Your task to perform on an android device: What's the weather going to be tomorrow? Image 0: 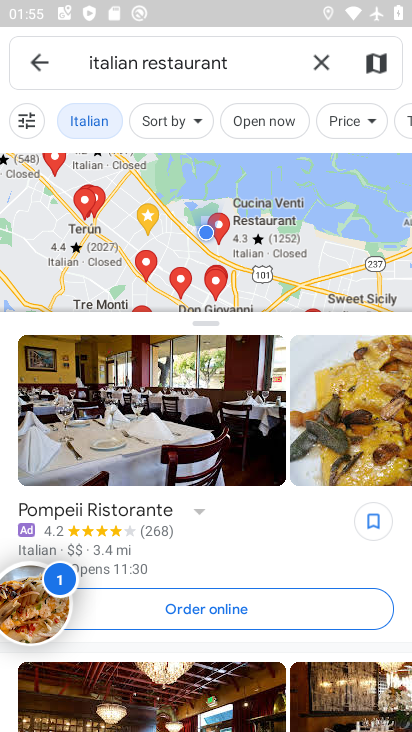
Step 0: press home button
Your task to perform on an android device: What's the weather going to be tomorrow? Image 1: 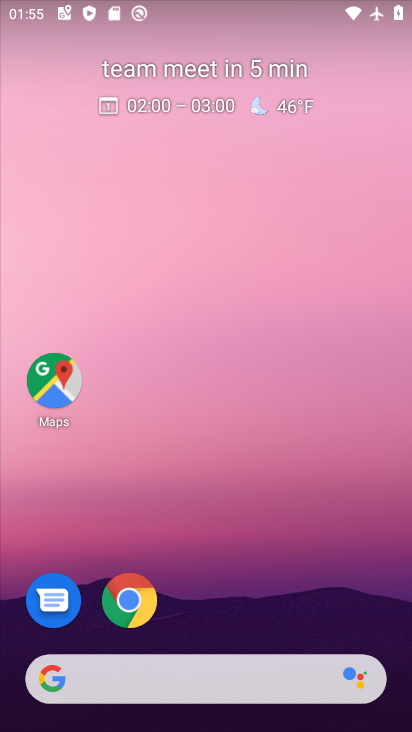
Step 1: drag from (218, 635) to (165, 71)
Your task to perform on an android device: What's the weather going to be tomorrow? Image 2: 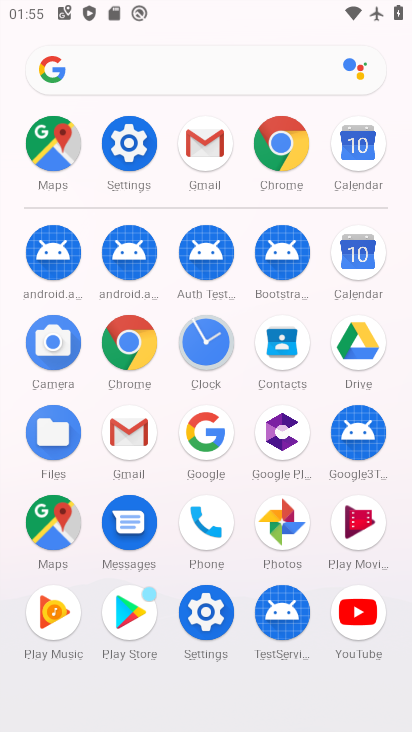
Step 2: click (195, 433)
Your task to perform on an android device: What's the weather going to be tomorrow? Image 3: 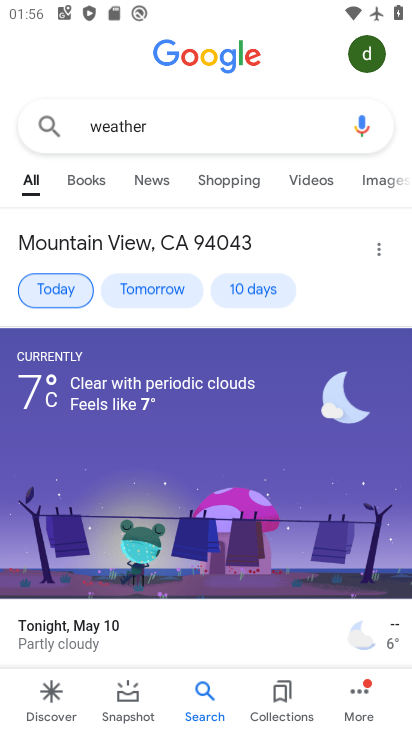
Step 3: click (121, 290)
Your task to perform on an android device: What's the weather going to be tomorrow? Image 4: 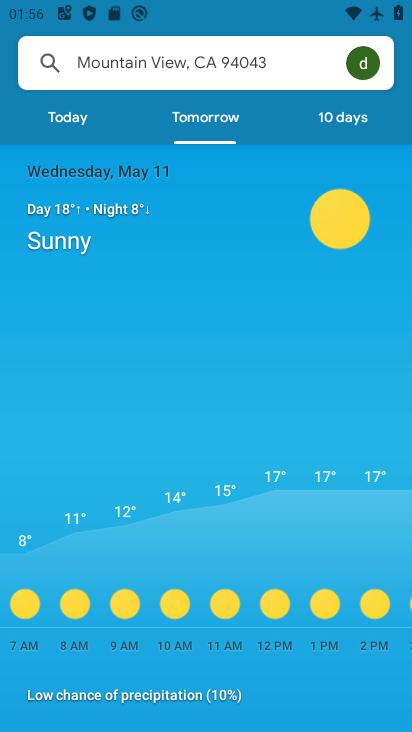
Step 4: task complete